Your task to perform on an android device: Do I have any events this weekend? Image 0: 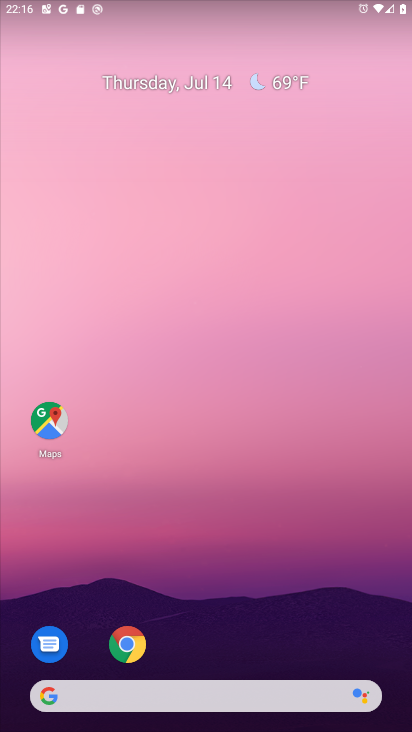
Step 0: click (147, 73)
Your task to perform on an android device: Do I have any events this weekend? Image 1: 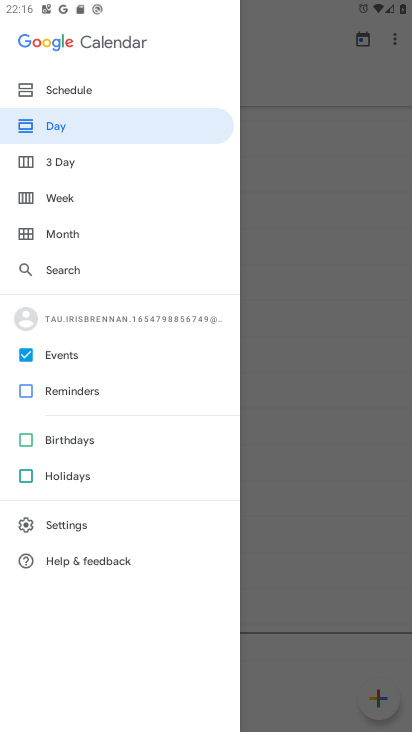
Step 1: click (56, 191)
Your task to perform on an android device: Do I have any events this weekend? Image 2: 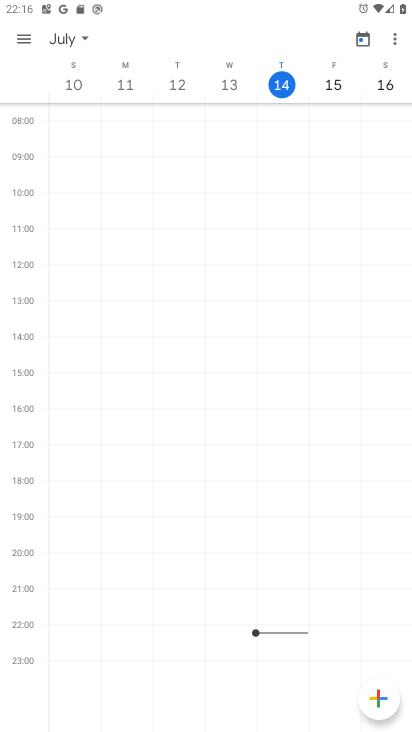
Step 2: click (383, 87)
Your task to perform on an android device: Do I have any events this weekend? Image 3: 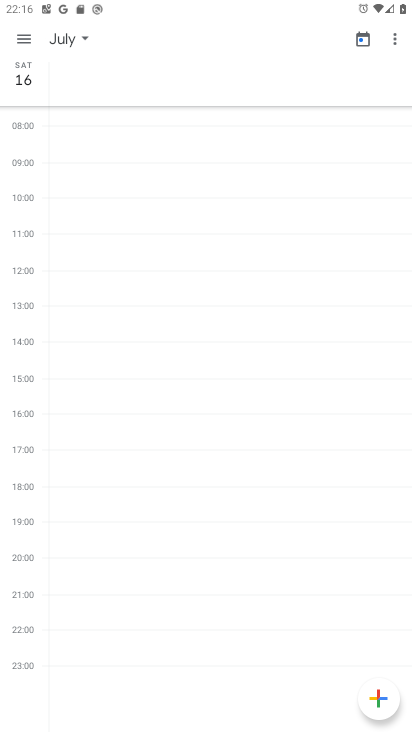
Step 3: task complete